Your task to perform on an android device: Go to internet settings Image 0: 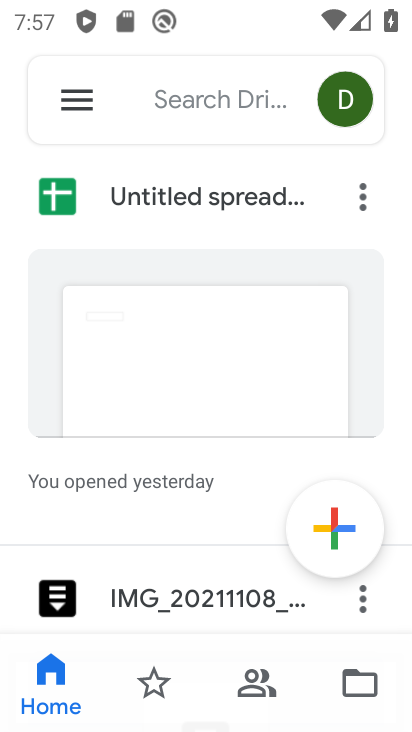
Step 0: press home button
Your task to perform on an android device: Go to internet settings Image 1: 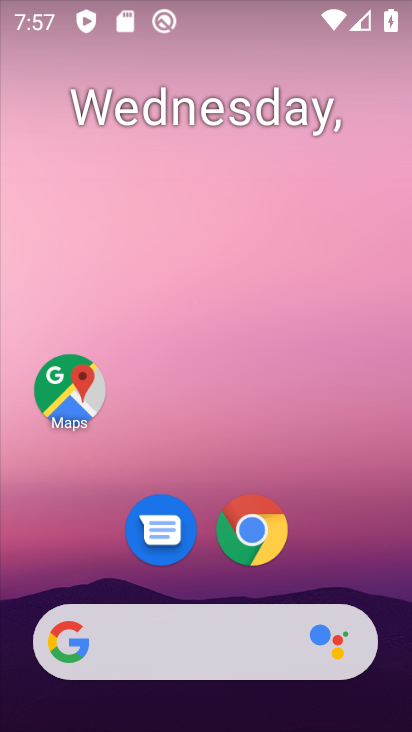
Step 1: drag from (326, 580) to (290, 0)
Your task to perform on an android device: Go to internet settings Image 2: 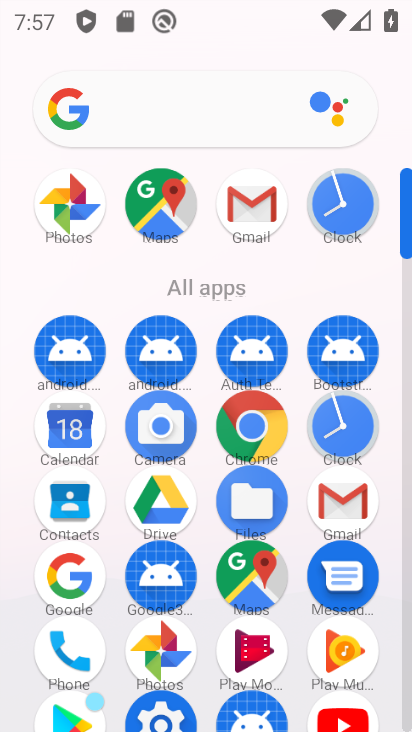
Step 2: click (166, 706)
Your task to perform on an android device: Go to internet settings Image 3: 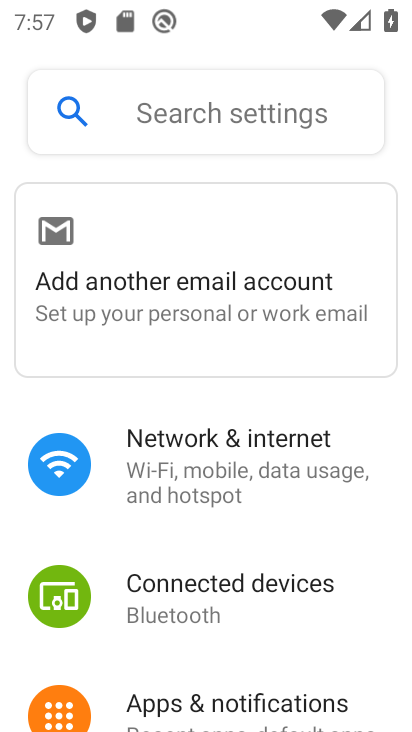
Step 3: click (194, 481)
Your task to perform on an android device: Go to internet settings Image 4: 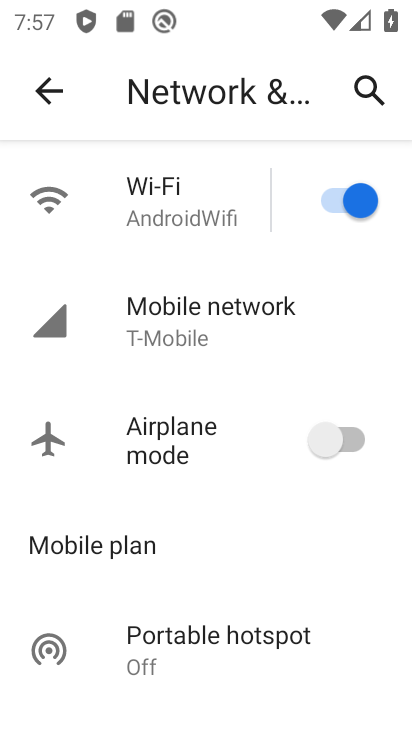
Step 4: task complete